Your task to perform on an android device: turn on translation in the chrome app Image 0: 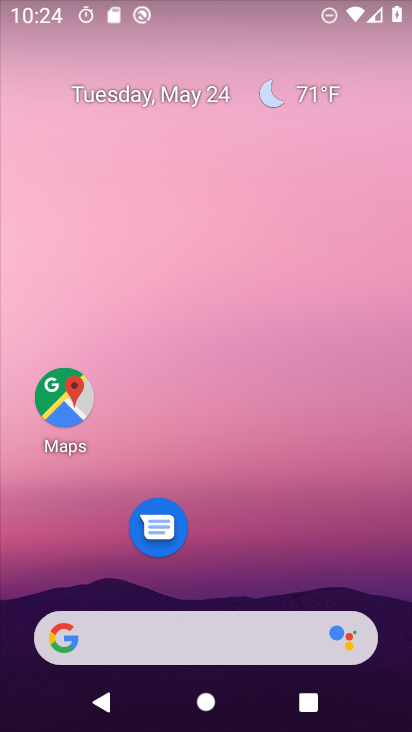
Step 0: drag from (273, 551) to (283, 102)
Your task to perform on an android device: turn on translation in the chrome app Image 1: 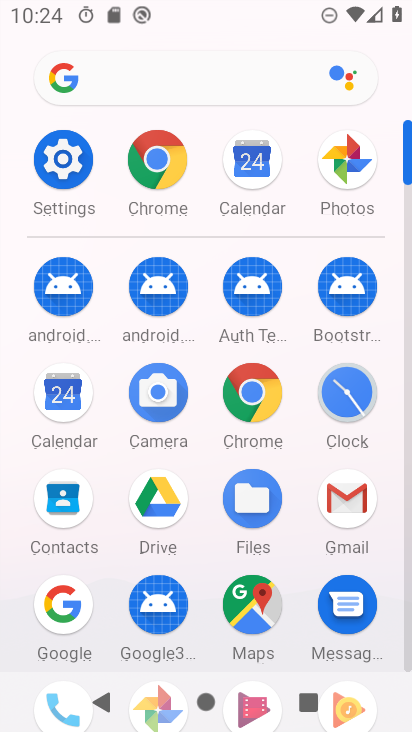
Step 1: click (159, 153)
Your task to perform on an android device: turn on translation in the chrome app Image 2: 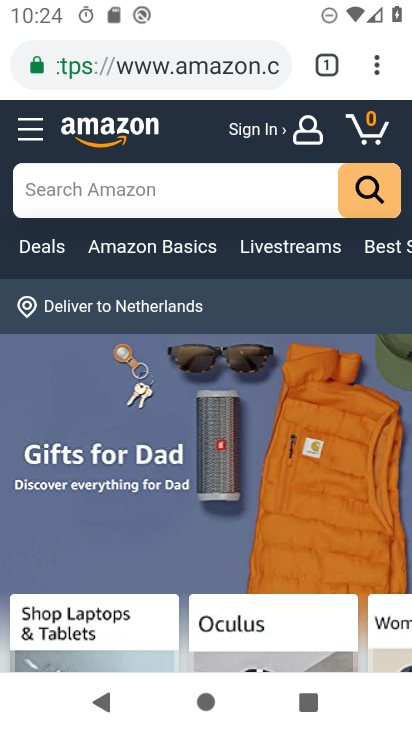
Step 2: click (366, 63)
Your task to perform on an android device: turn on translation in the chrome app Image 3: 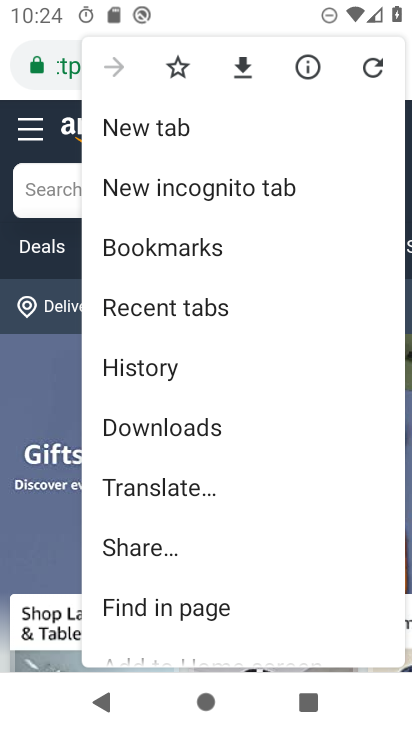
Step 3: drag from (196, 613) to (196, 156)
Your task to perform on an android device: turn on translation in the chrome app Image 4: 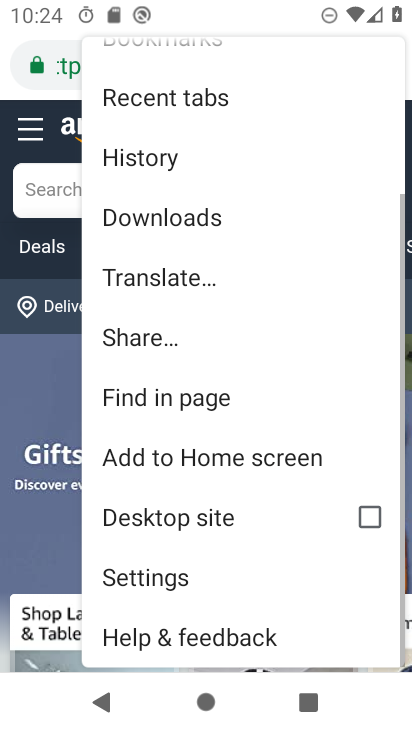
Step 4: click (145, 579)
Your task to perform on an android device: turn on translation in the chrome app Image 5: 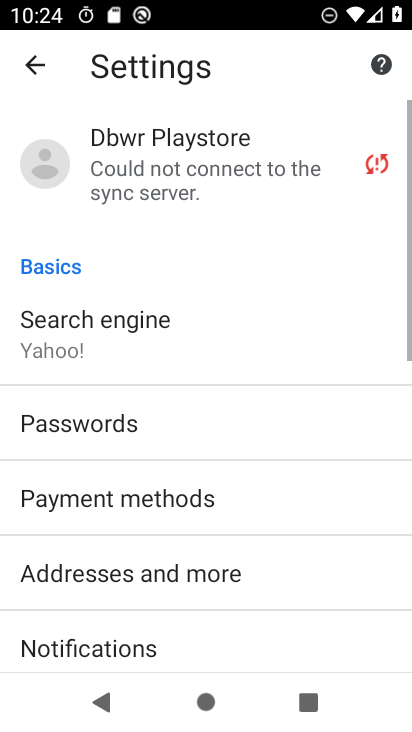
Step 5: drag from (273, 600) to (314, 119)
Your task to perform on an android device: turn on translation in the chrome app Image 6: 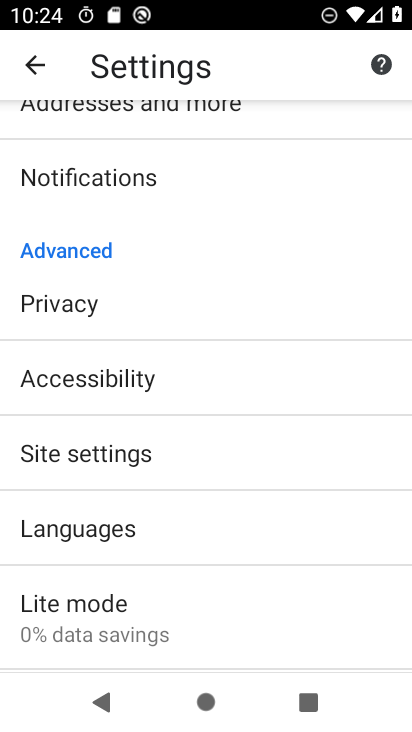
Step 6: click (106, 527)
Your task to perform on an android device: turn on translation in the chrome app Image 7: 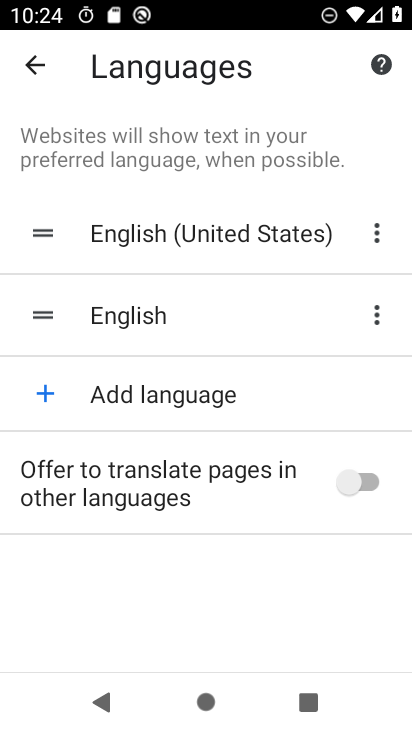
Step 7: click (360, 476)
Your task to perform on an android device: turn on translation in the chrome app Image 8: 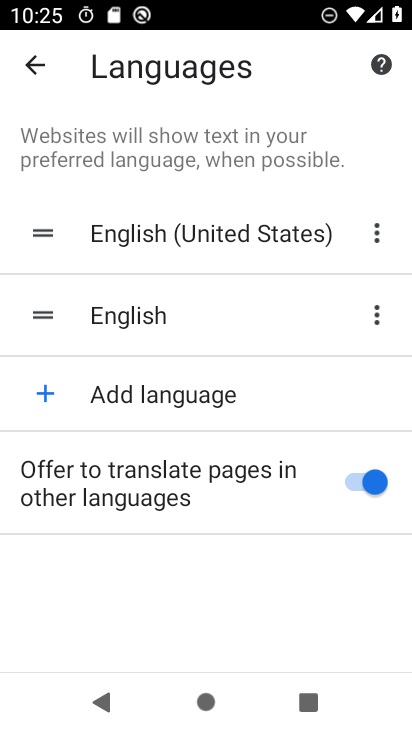
Step 8: task complete